Your task to perform on an android device: Do I have any events this weekend? Image 0: 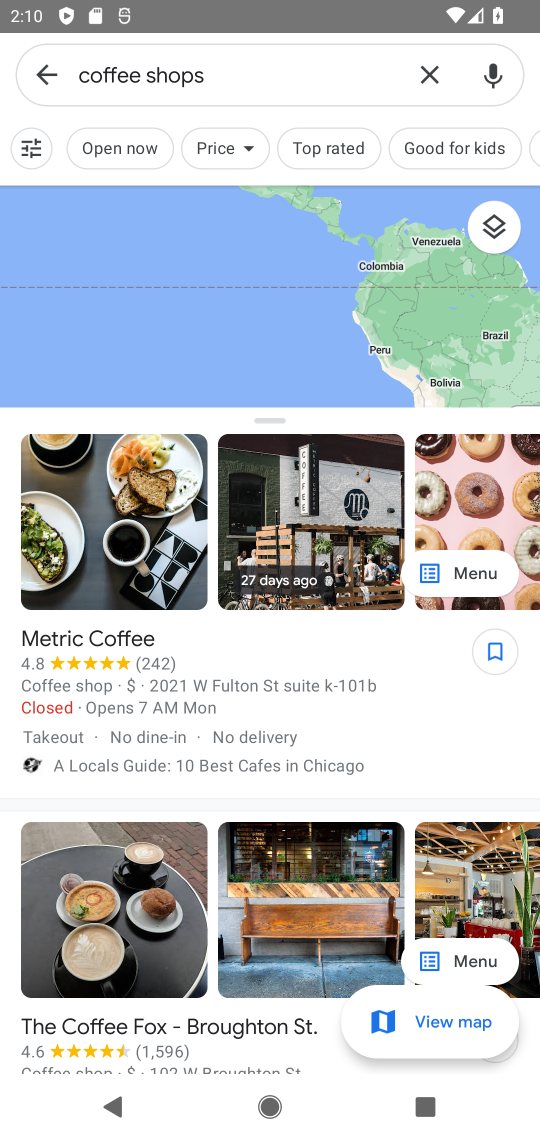
Step 0: press home button
Your task to perform on an android device: Do I have any events this weekend? Image 1: 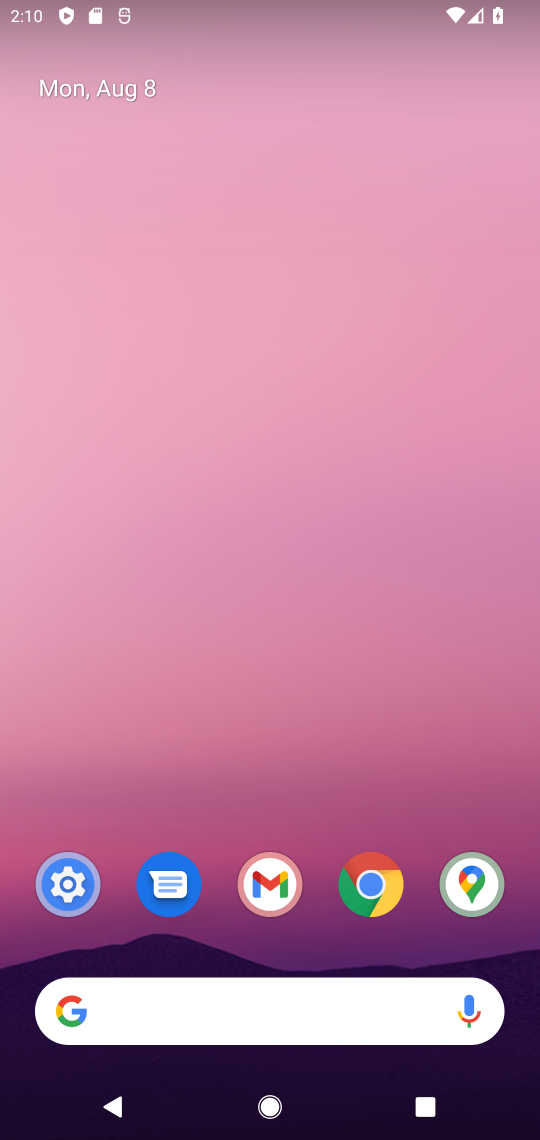
Step 1: click (324, 780)
Your task to perform on an android device: Do I have any events this weekend? Image 2: 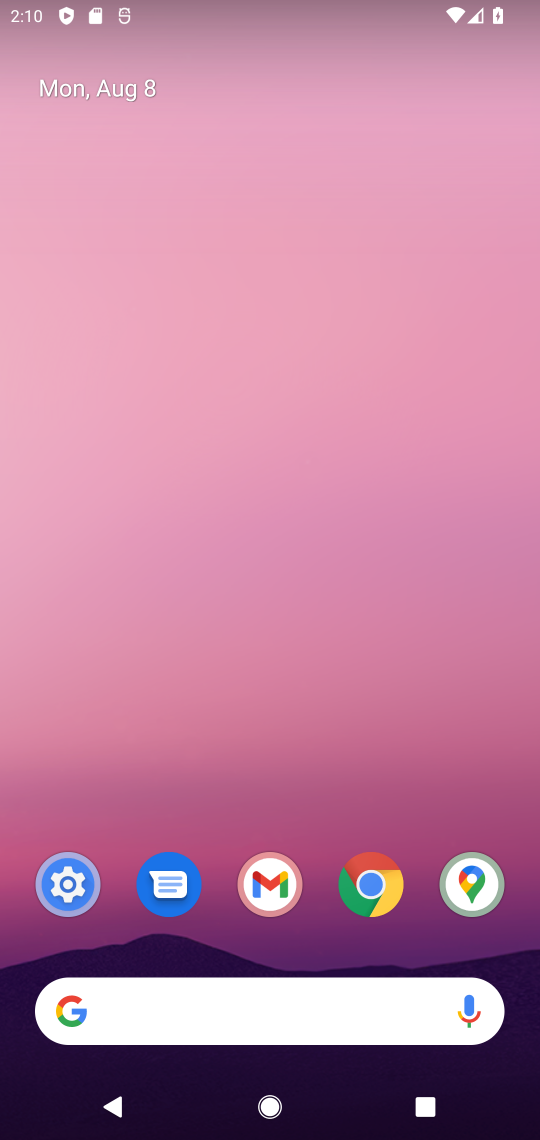
Step 2: drag from (318, 779) to (356, 29)
Your task to perform on an android device: Do I have any events this weekend? Image 3: 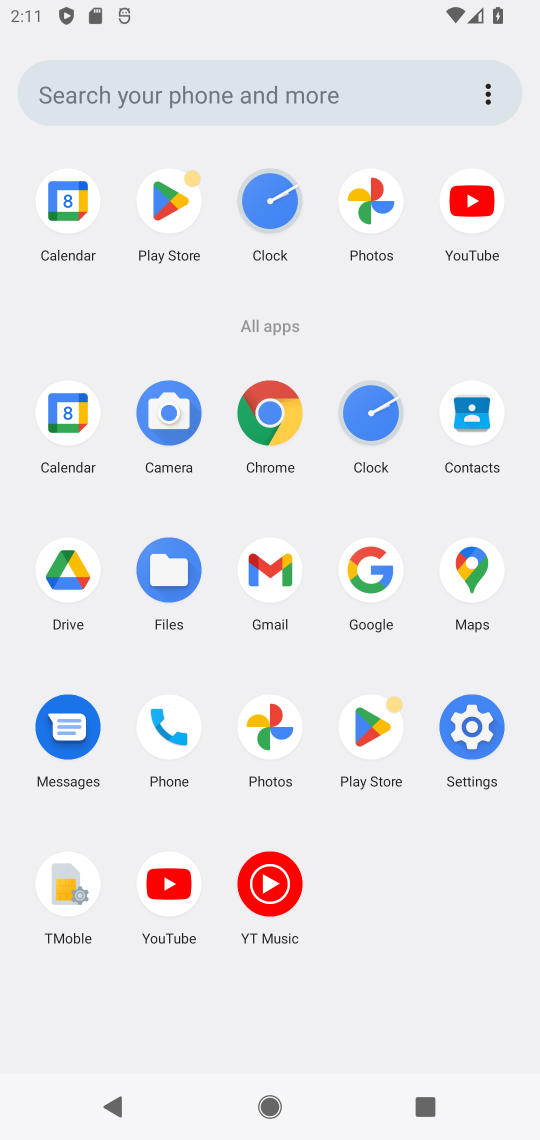
Step 3: click (64, 192)
Your task to perform on an android device: Do I have any events this weekend? Image 4: 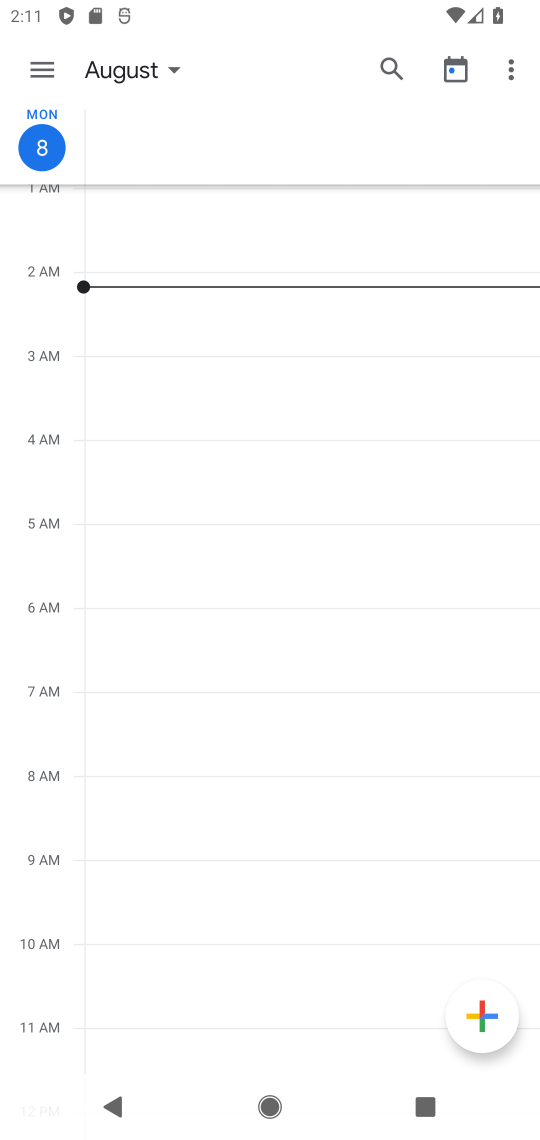
Step 4: click (40, 78)
Your task to perform on an android device: Do I have any events this weekend? Image 5: 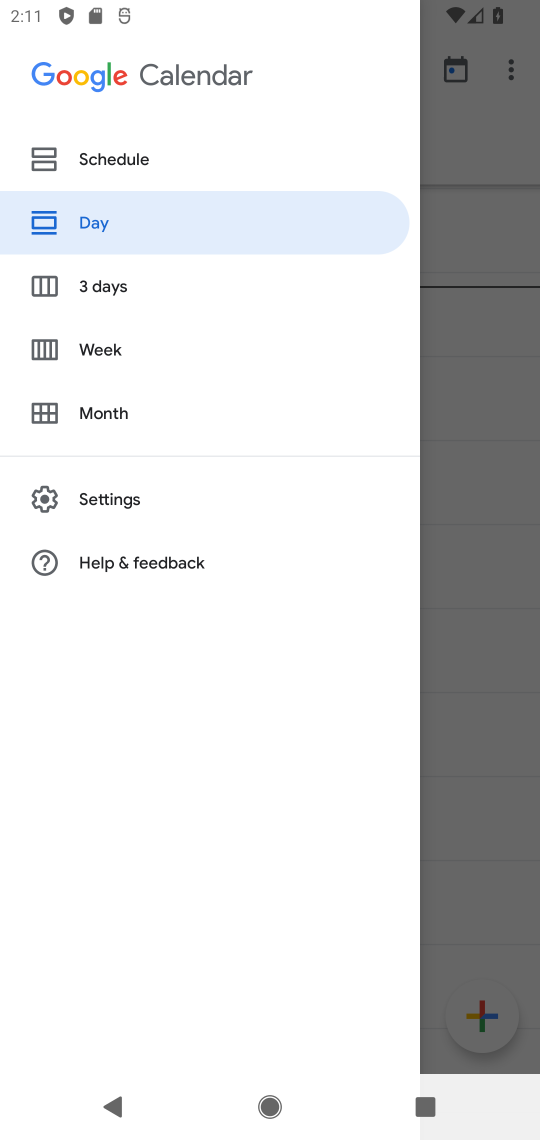
Step 5: click (96, 350)
Your task to perform on an android device: Do I have any events this weekend? Image 6: 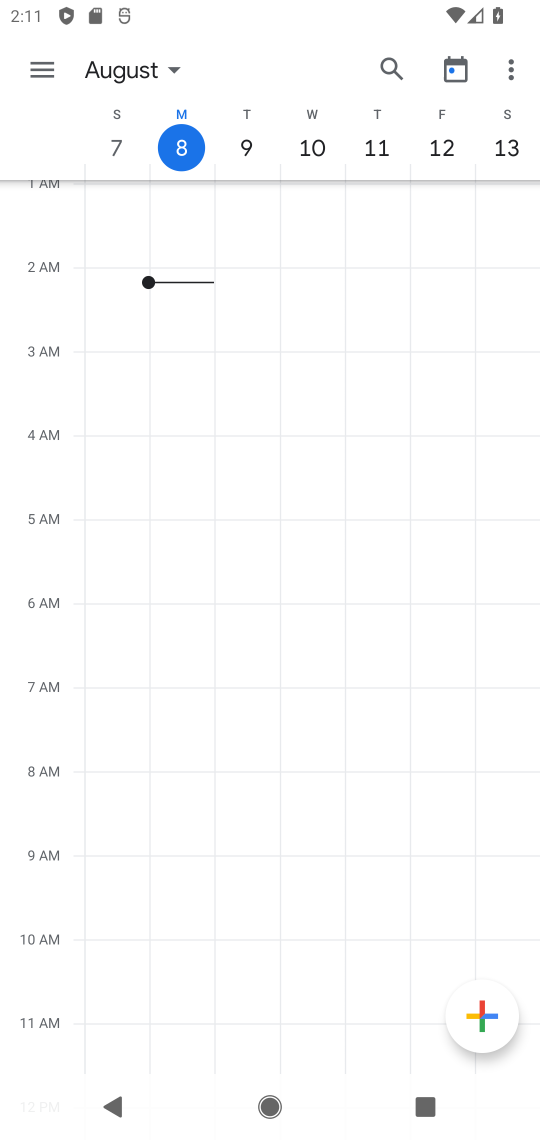
Step 6: task complete